Your task to perform on an android device: Open Google Chrome and click the shortcut for Amazon.com Image 0: 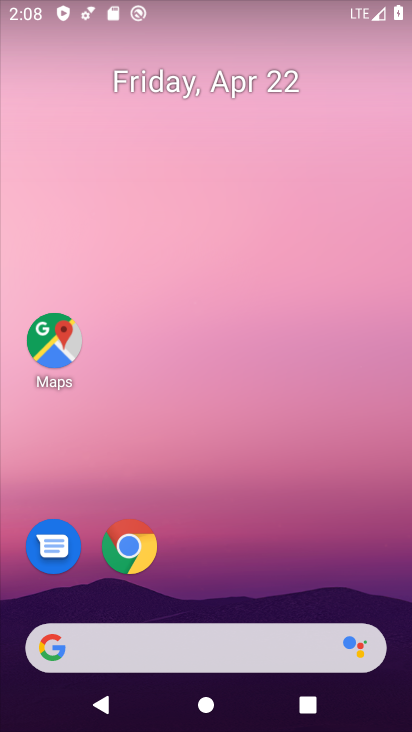
Step 0: drag from (215, 430) to (273, 188)
Your task to perform on an android device: Open Google Chrome and click the shortcut for Amazon.com Image 1: 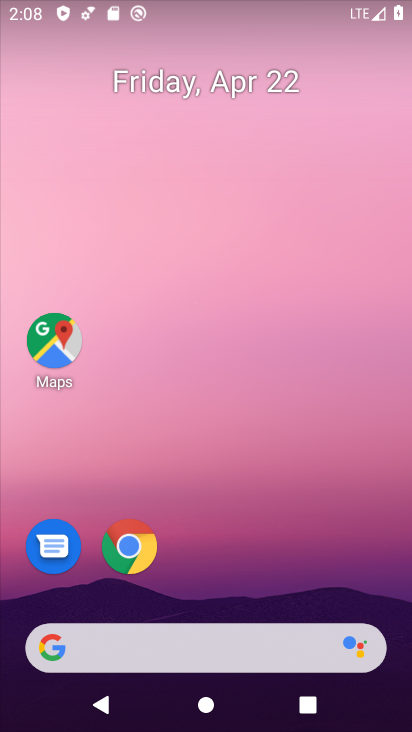
Step 1: drag from (240, 580) to (308, 161)
Your task to perform on an android device: Open Google Chrome and click the shortcut for Amazon.com Image 2: 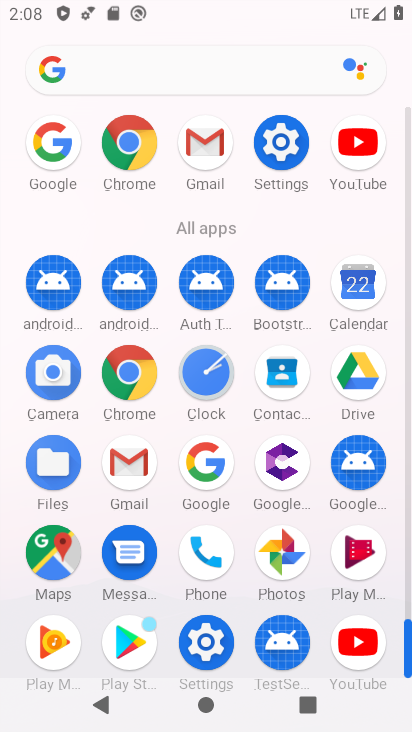
Step 2: click (137, 408)
Your task to perform on an android device: Open Google Chrome and click the shortcut for Amazon.com Image 3: 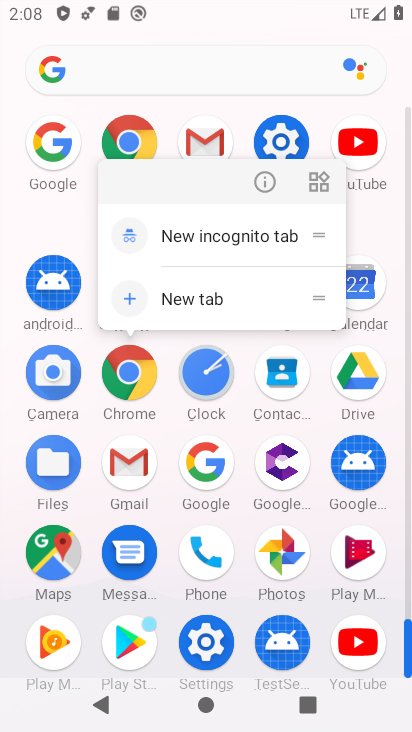
Step 3: click (134, 401)
Your task to perform on an android device: Open Google Chrome and click the shortcut for Amazon.com Image 4: 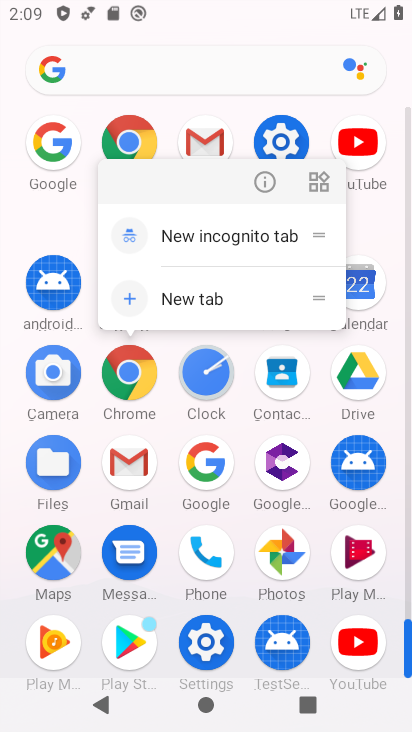
Step 4: click (130, 413)
Your task to perform on an android device: Open Google Chrome and click the shortcut for Amazon.com Image 5: 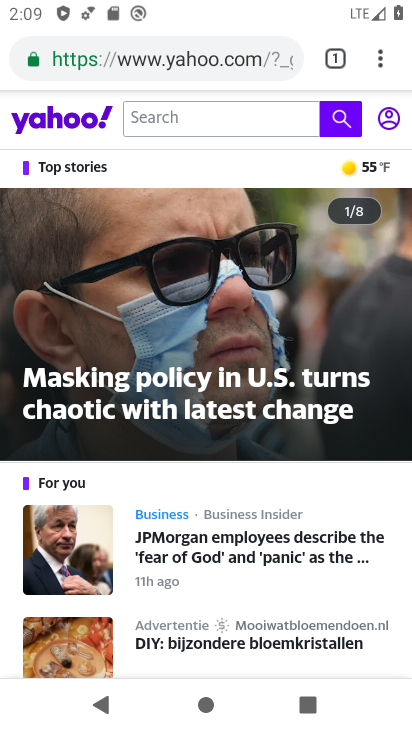
Step 5: click (386, 70)
Your task to perform on an android device: Open Google Chrome and click the shortcut for Amazon.com Image 6: 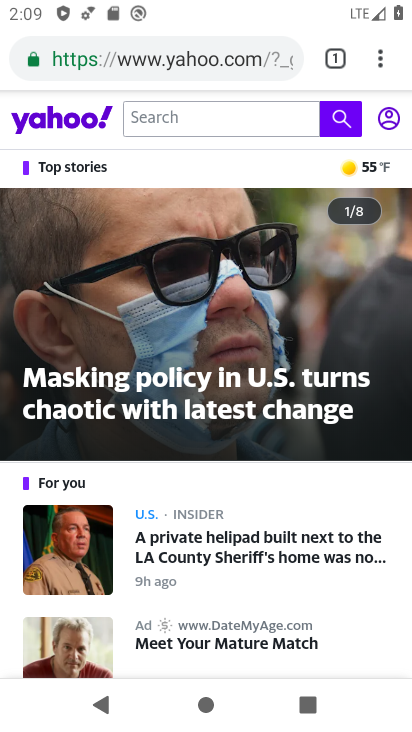
Step 6: drag from (267, 57) to (237, 240)
Your task to perform on an android device: Open Google Chrome and click the shortcut for Amazon.com Image 7: 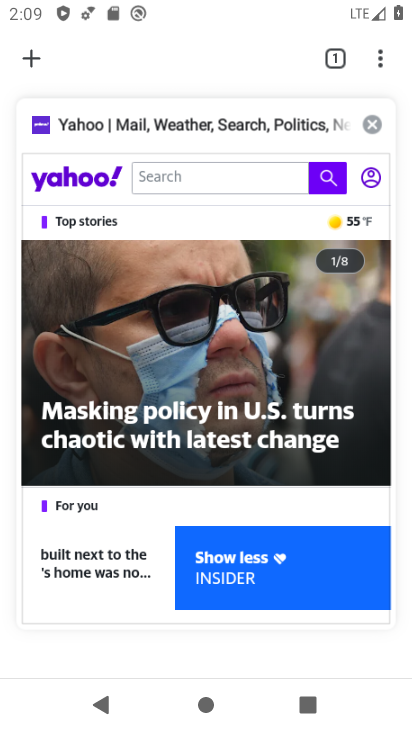
Step 7: click (25, 58)
Your task to perform on an android device: Open Google Chrome and click the shortcut for Amazon.com Image 8: 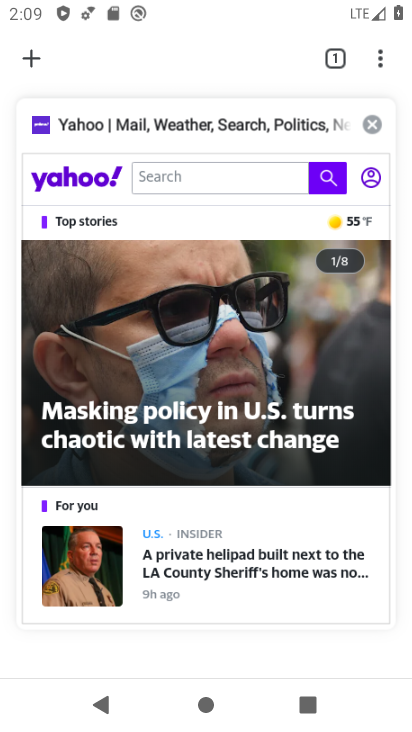
Step 8: click (32, 70)
Your task to perform on an android device: Open Google Chrome and click the shortcut for Amazon.com Image 9: 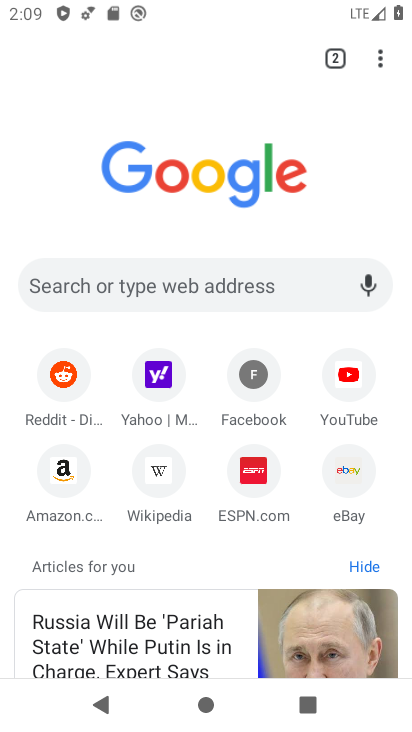
Step 9: click (58, 480)
Your task to perform on an android device: Open Google Chrome and click the shortcut for Amazon.com Image 10: 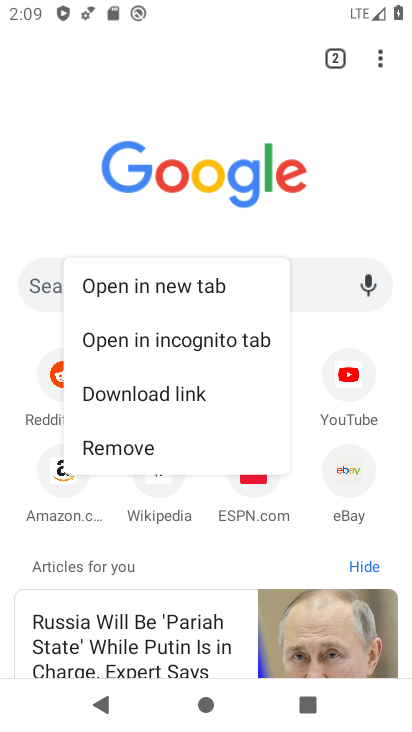
Step 10: task complete